Your task to perform on an android device: open app "Clock" Image 0: 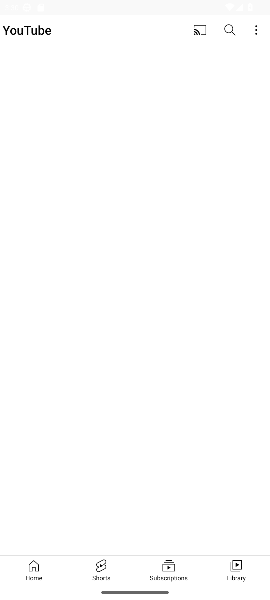
Step 0: press home button
Your task to perform on an android device: open app "Clock" Image 1: 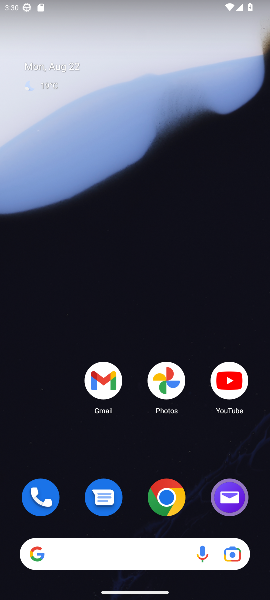
Step 1: drag from (46, 443) to (61, 118)
Your task to perform on an android device: open app "Clock" Image 2: 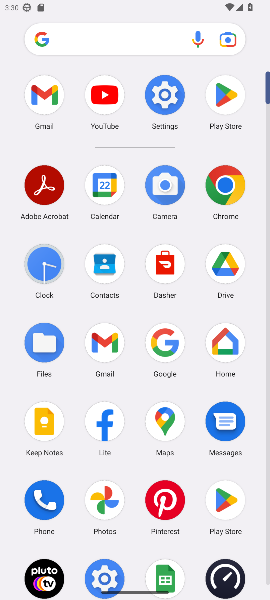
Step 2: click (41, 264)
Your task to perform on an android device: open app "Clock" Image 3: 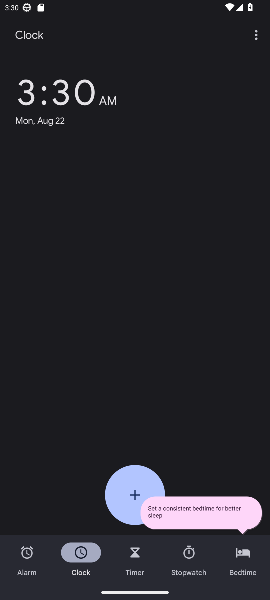
Step 3: task complete